Your task to perform on an android device: turn on translation in the chrome app Image 0: 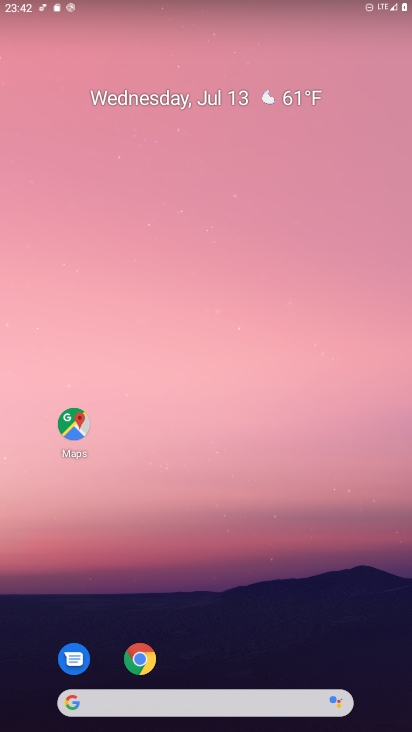
Step 0: click (140, 657)
Your task to perform on an android device: turn on translation in the chrome app Image 1: 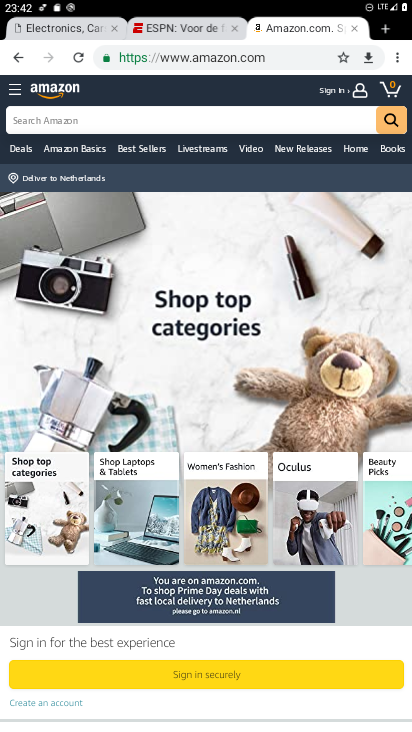
Step 1: click (396, 60)
Your task to perform on an android device: turn on translation in the chrome app Image 2: 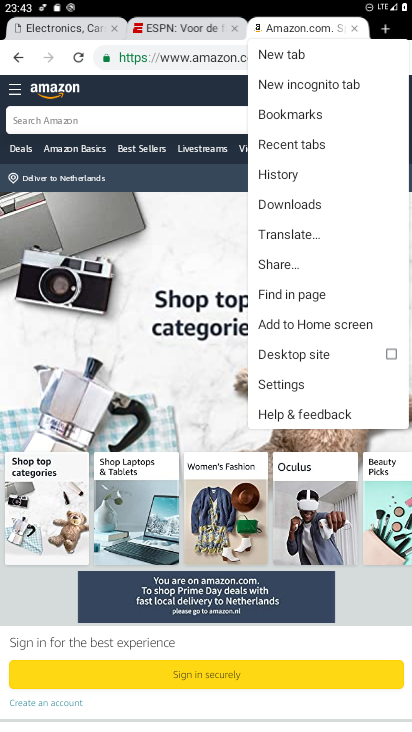
Step 2: click (286, 377)
Your task to perform on an android device: turn on translation in the chrome app Image 3: 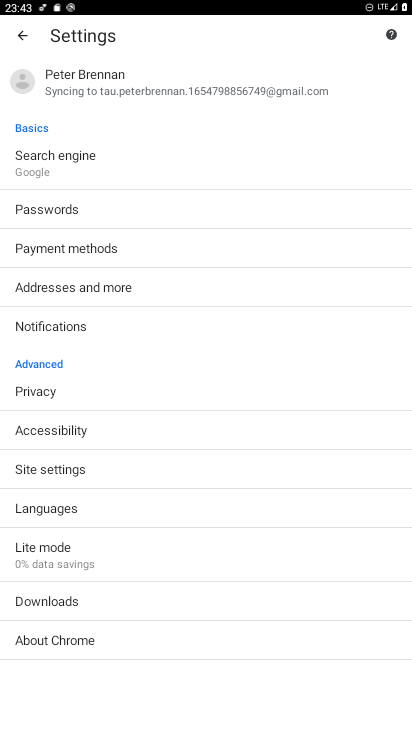
Step 3: click (34, 500)
Your task to perform on an android device: turn on translation in the chrome app Image 4: 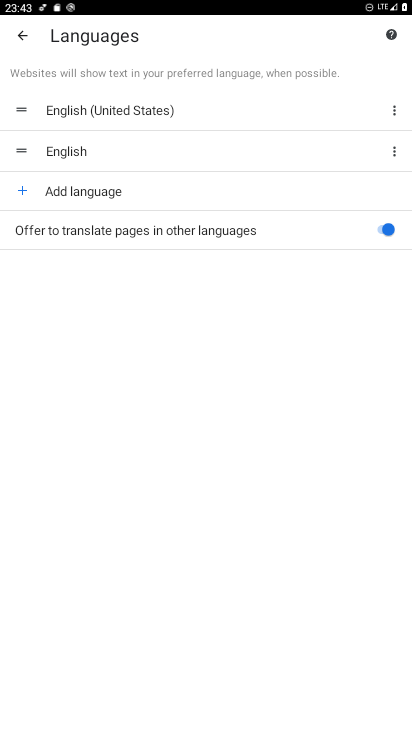
Step 4: task complete